Your task to perform on an android device: toggle javascript in the chrome app Image 0: 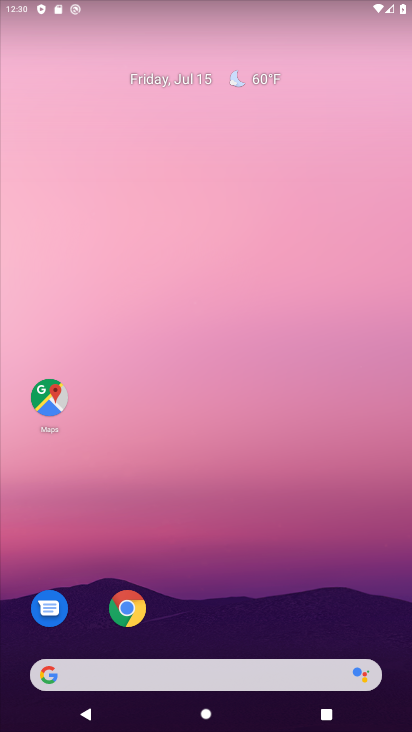
Step 0: drag from (263, 598) to (334, 3)
Your task to perform on an android device: toggle javascript in the chrome app Image 1: 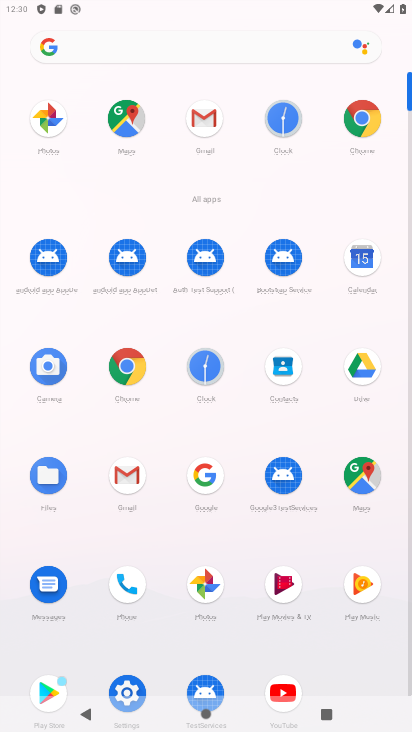
Step 1: click (126, 357)
Your task to perform on an android device: toggle javascript in the chrome app Image 2: 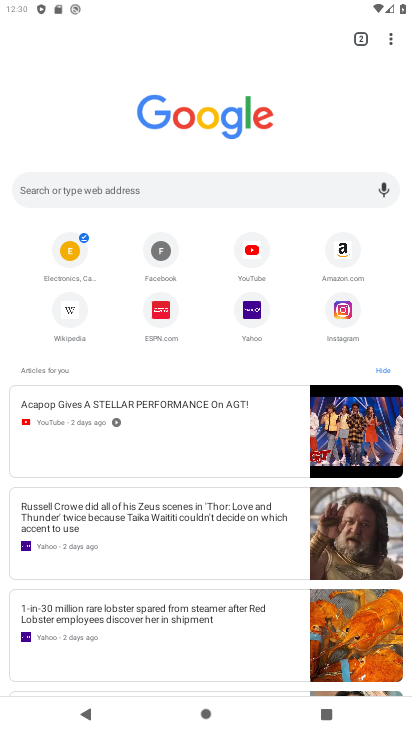
Step 2: drag from (387, 33) to (260, 320)
Your task to perform on an android device: toggle javascript in the chrome app Image 3: 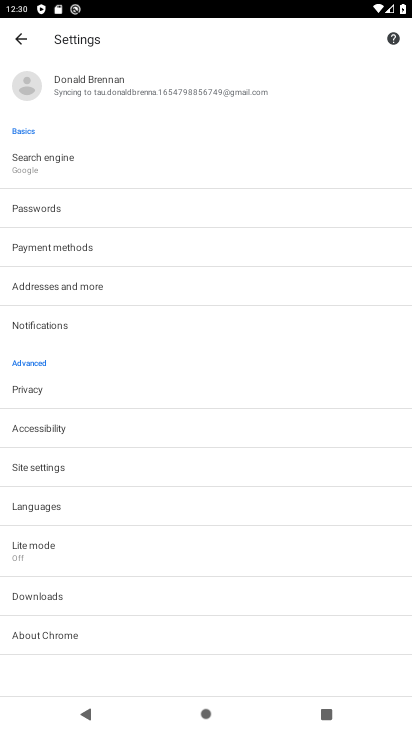
Step 3: click (60, 462)
Your task to perform on an android device: toggle javascript in the chrome app Image 4: 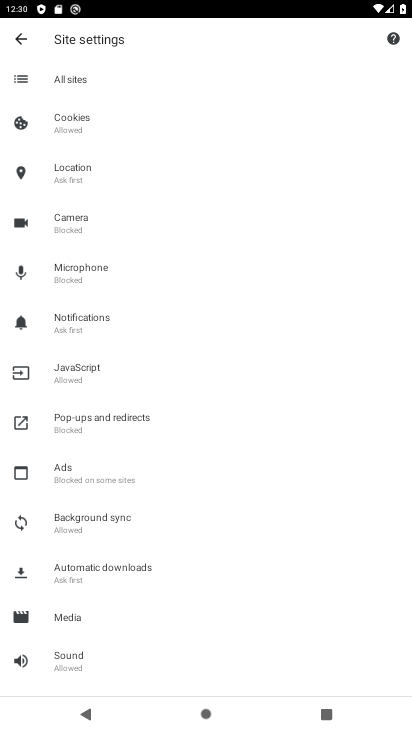
Step 4: click (95, 367)
Your task to perform on an android device: toggle javascript in the chrome app Image 5: 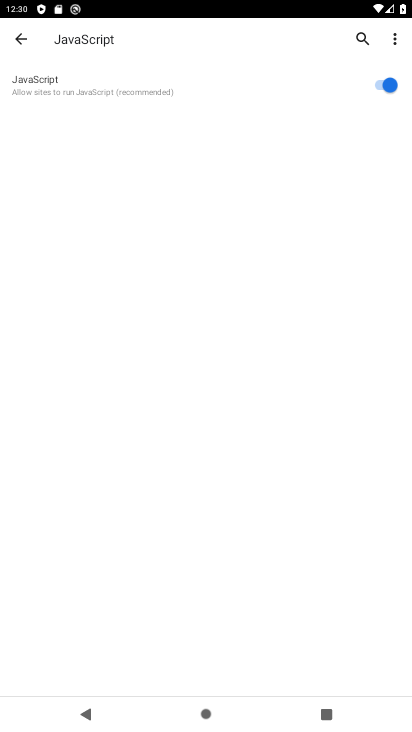
Step 5: click (215, 95)
Your task to perform on an android device: toggle javascript in the chrome app Image 6: 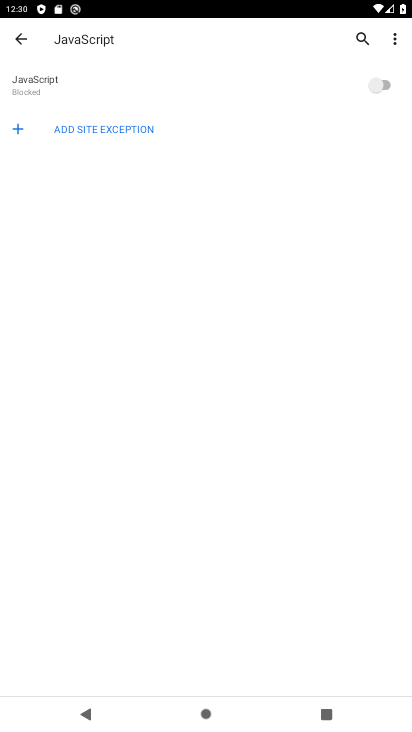
Step 6: task complete